Your task to perform on an android device: Do I have any events today? Image 0: 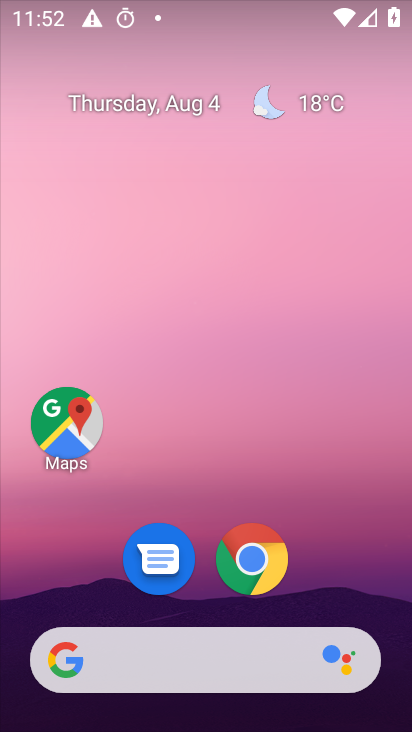
Step 0: drag from (70, 700) to (210, 327)
Your task to perform on an android device: Do I have any events today? Image 1: 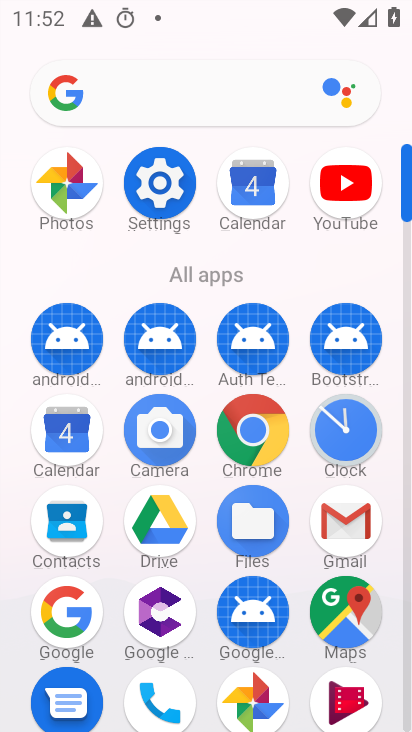
Step 1: click (83, 428)
Your task to perform on an android device: Do I have any events today? Image 2: 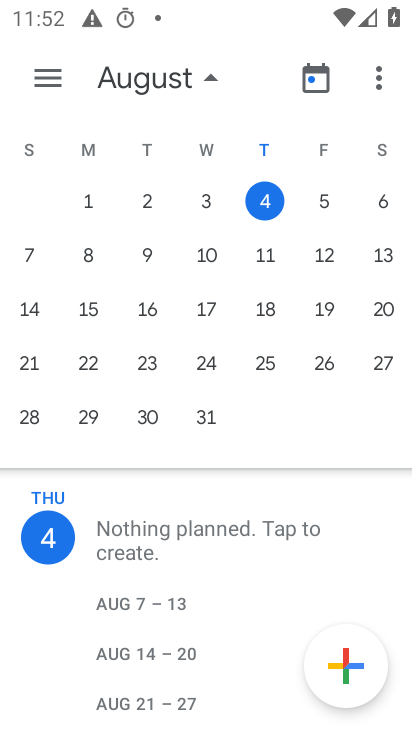
Step 2: task complete